Your task to perform on an android device: Go to Amazon Image 0: 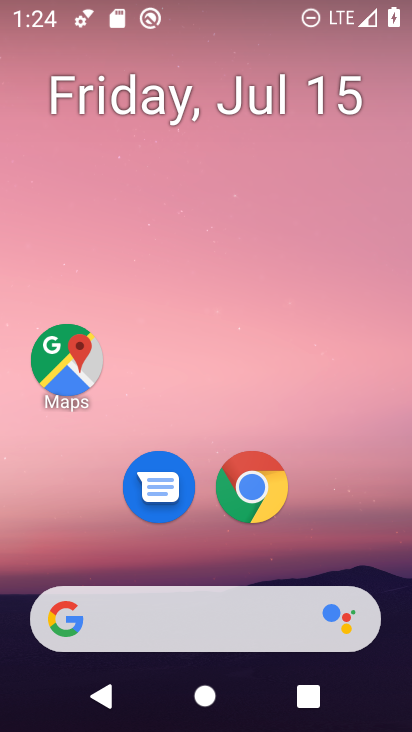
Step 0: drag from (281, 546) to (406, 245)
Your task to perform on an android device: Go to Amazon Image 1: 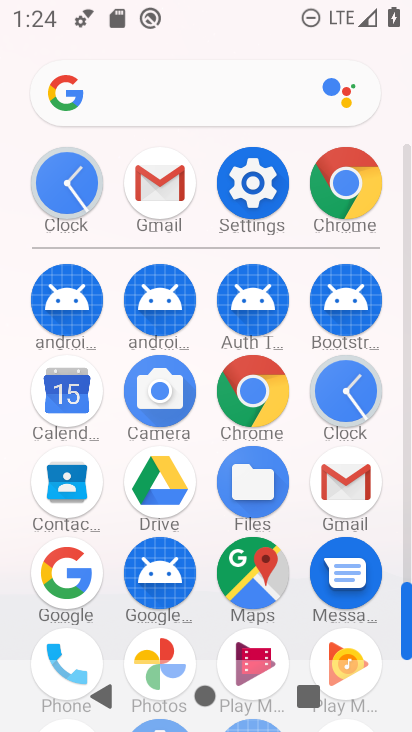
Step 1: click (267, 404)
Your task to perform on an android device: Go to Amazon Image 2: 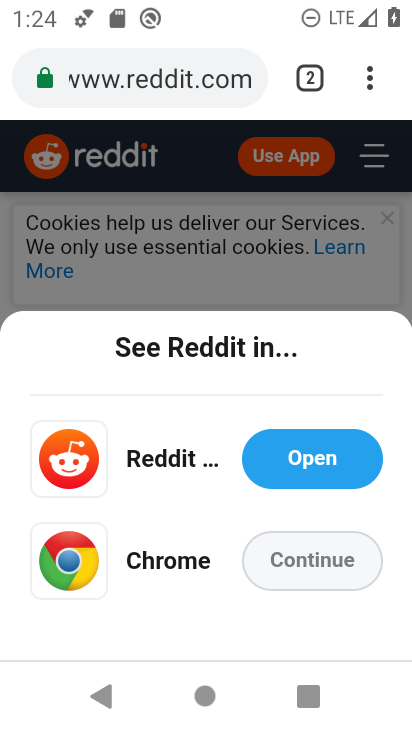
Step 2: click (199, 85)
Your task to perform on an android device: Go to Amazon Image 3: 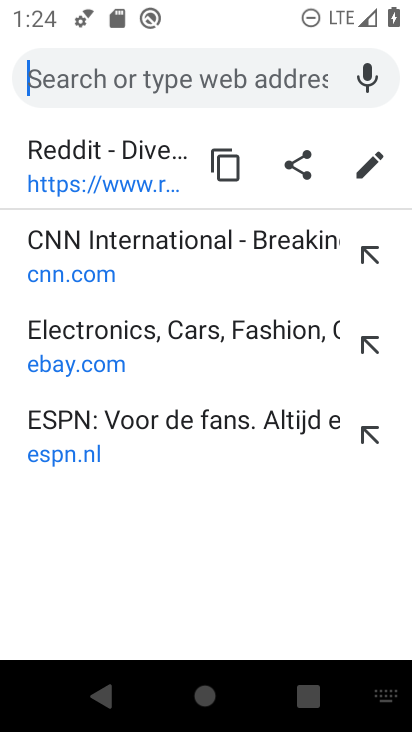
Step 3: type "amazon"
Your task to perform on an android device: Go to Amazon Image 4: 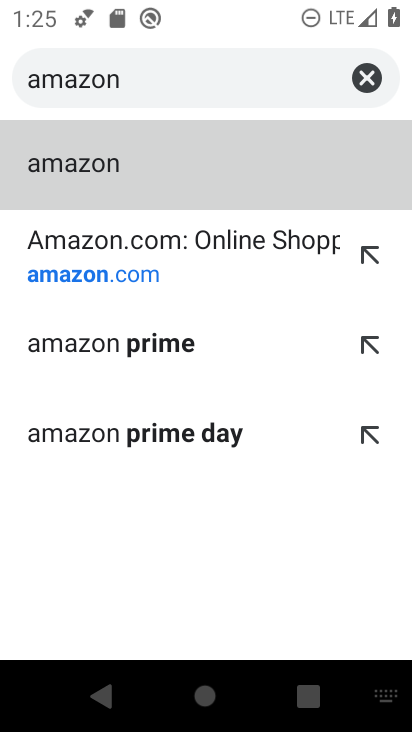
Step 4: click (137, 250)
Your task to perform on an android device: Go to Amazon Image 5: 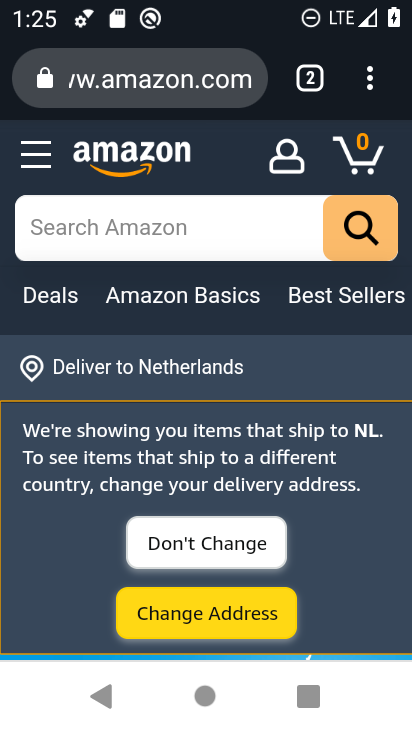
Step 5: task complete